Your task to perform on an android device: Search for Mexican restaurants on Maps Image 0: 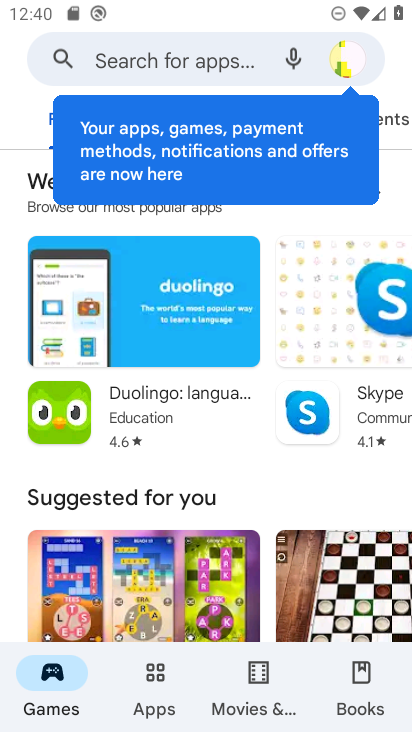
Step 0: press home button
Your task to perform on an android device: Search for Mexican restaurants on Maps Image 1: 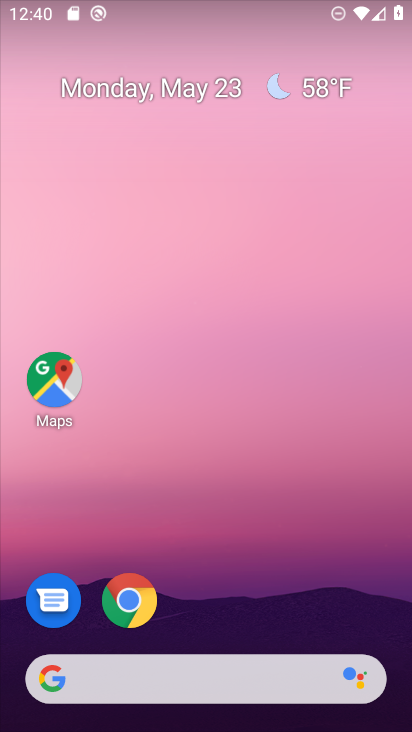
Step 1: drag from (383, 487) to (328, 67)
Your task to perform on an android device: Search for Mexican restaurants on Maps Image 2: 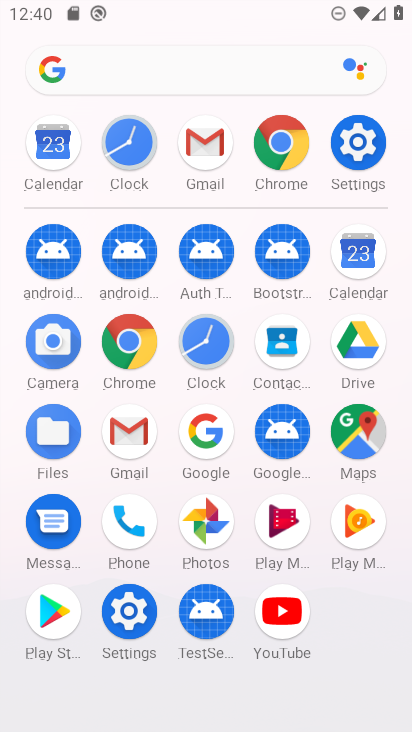
Step 2: click (366, 439)
Your task to perform on an android device: Search for Mexican restaurants on Maps Image 3: 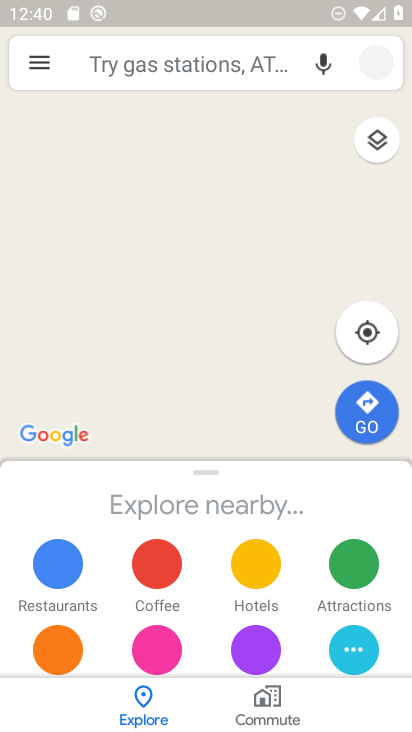
Step 3: click (184, 54)
Your task to perform on an android device: Search for Mexican restaurants on Maps Image 4: 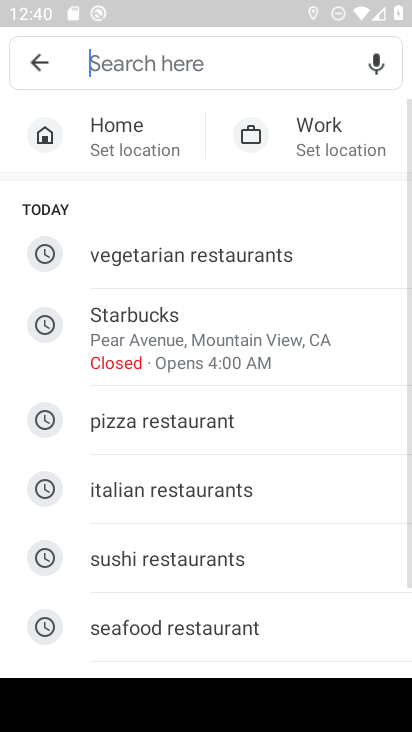
Step 4: drag from (243, 586) to (207, 113)
Your task to perform on an android device: Search for Mexican restaurants on Maps Image 5: 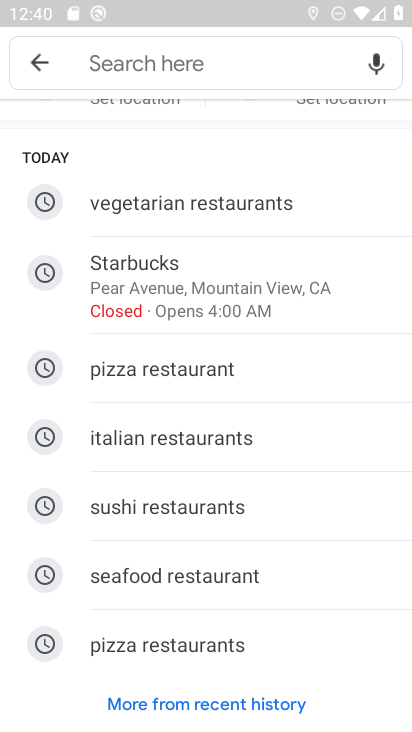
Step 5: drag from (241, 583) to (199, 286)
Your task to perform on an android device: Search for Mexican restaurants on Maps Image 6: 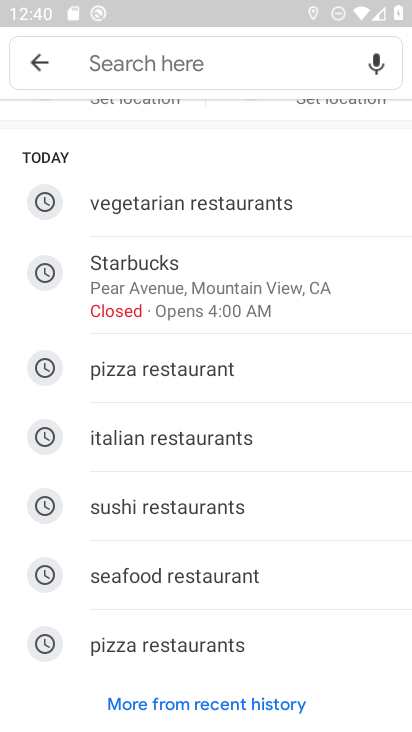
Step 6: click (276, 706)
Your task to perform on an android device: Search for Mexican restaurants on Maps Image 7: 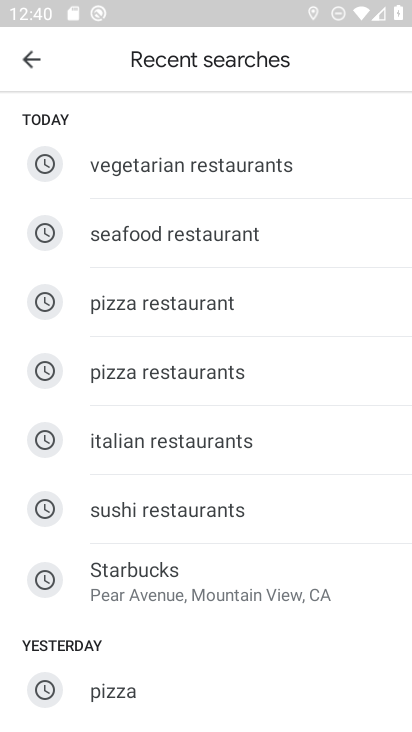
Step 7: drag from (320, 599) to (319, 205)
Your task to perform on an android device: Search for Mexican restaurants on Maps Image 8: 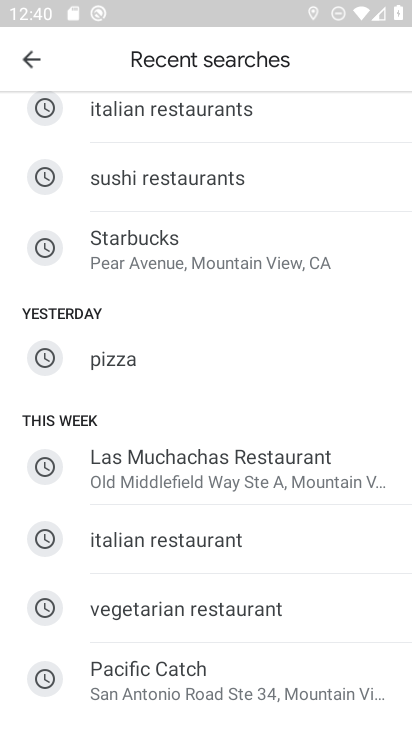
Step 8: drag from (290, 192) to (280, 540)
Your task to perform on an android device: Search for Mexican restaurants on Maps Image 9: 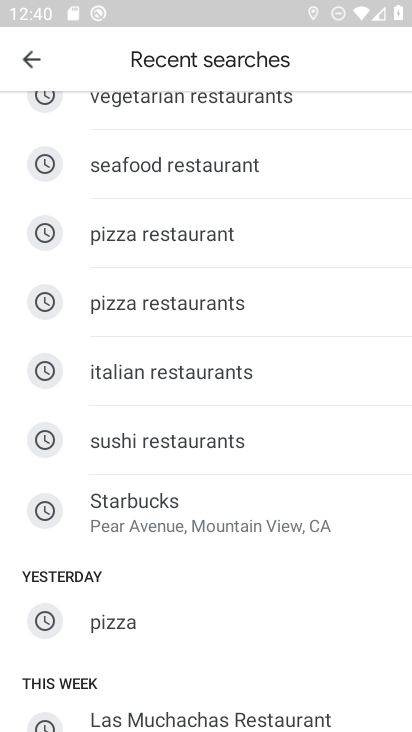
Step 9: drag from (280, 540) to (286, 128)
Your task to perform on an android device: Search for Mexican restaurants on Maps Image 10: 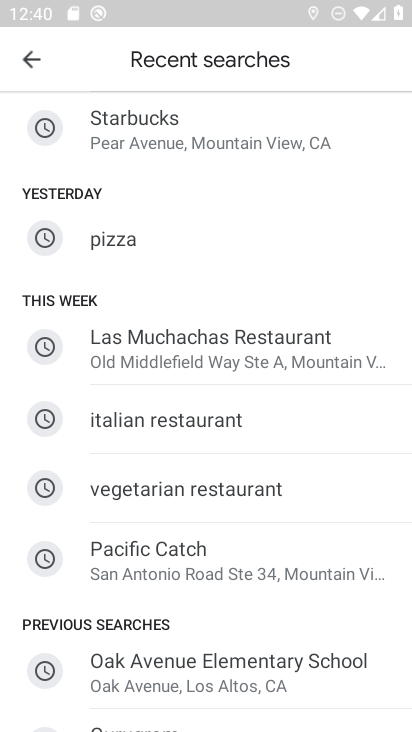
Step 10: drag from (266, 565) to (298, 128)
Your task to perform on an android device: Search for Mexican restaurants on Maps Image 11: 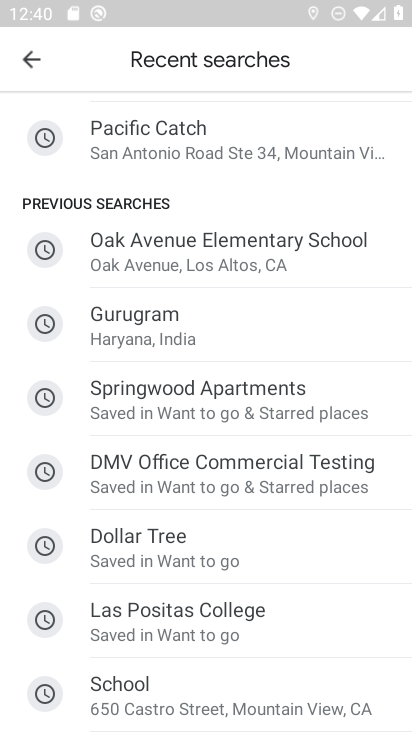
Step 11: drag from (303, 160) to (344, 647)
Your task to perform on an android device: Search for Mexican restaurants on Maps Image 12: 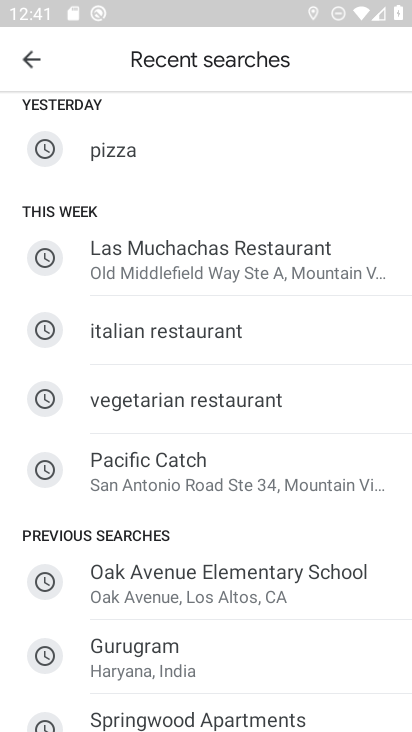
Step 12: drag from (275, 144) to (263, 675)
Your task to perform on an android device: Search for Mexican restaurants on Maps Image 13: 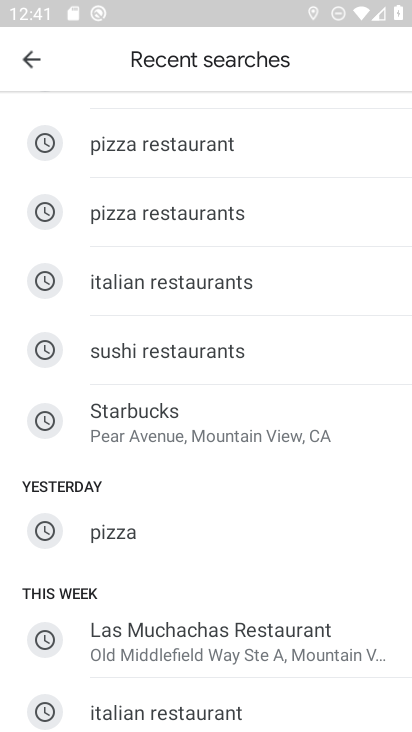
Step 13: drag from (227, 168) to (256, 659)
Your task to perform on an android device: Search for Mexican restaurants on Maps Image 14: 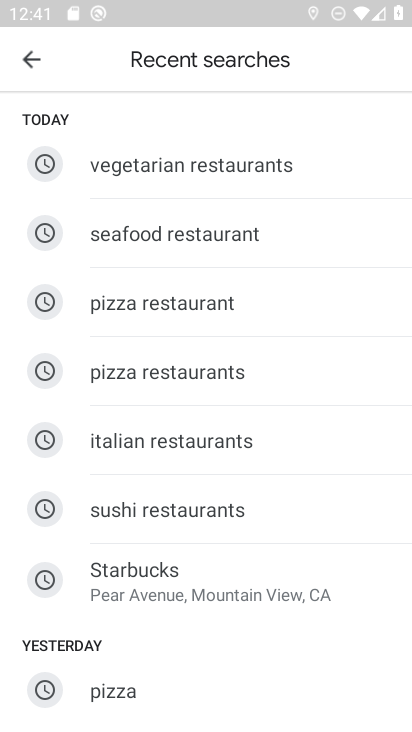
Step 14: click (33, 69)
Your task to perform on an android device: Search for Mexican restaurants on Maps Image 15: 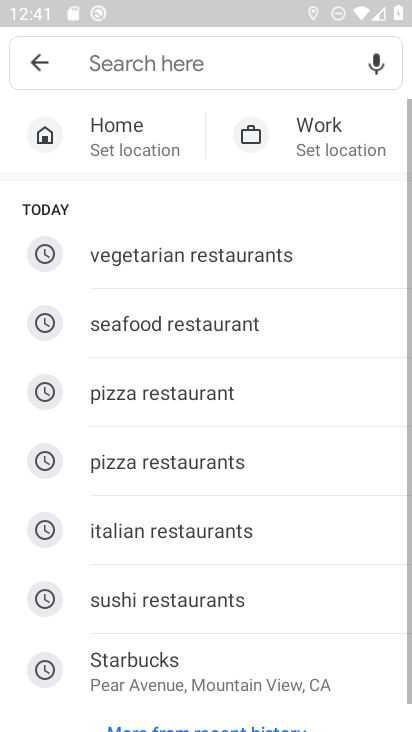
Step 15: click (218, 66)
Your task to perform on an android device: Search for Mexican restaurants on Maps Image 16: 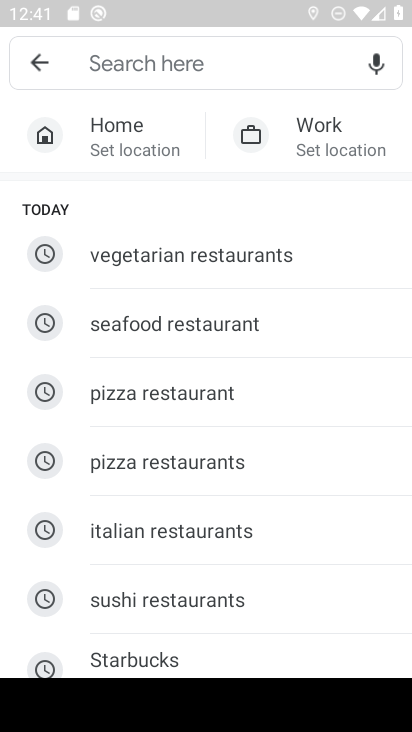
Step 16: type "mexican resturents"
Your task to perform on an android device: Search for Mexican restaurants on Maps Image 17: 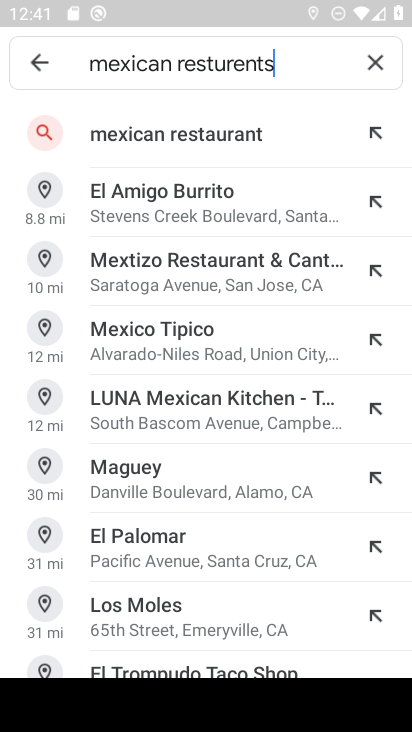
Step 17: click (226, 132)
Your task to perform on an android device: Search for Mexican restaurants on Maps Image 18: 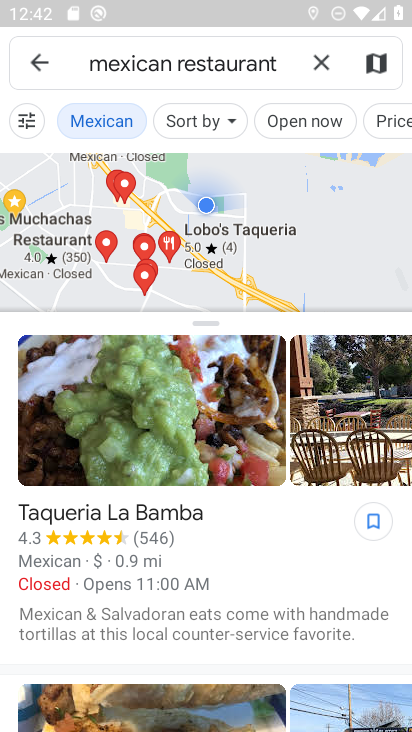
Step 18: task complete